Your task to perform on an android device: Open calendar and show me the fourth week of next month Image 0: 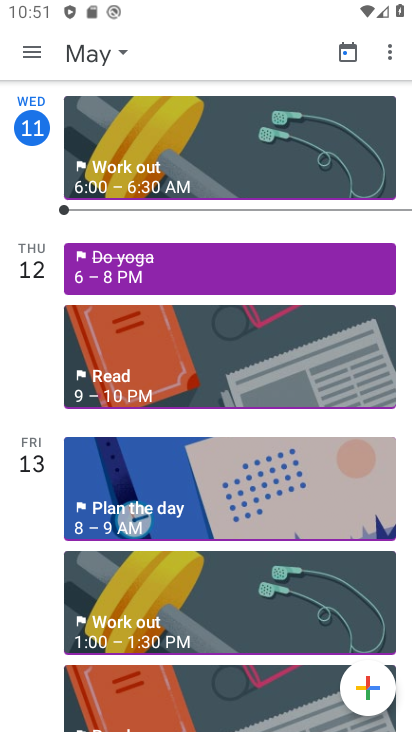
Step 0: press home button
Your task to perform on an android device: Open calendar and show me the fourth week of next month Image 1: 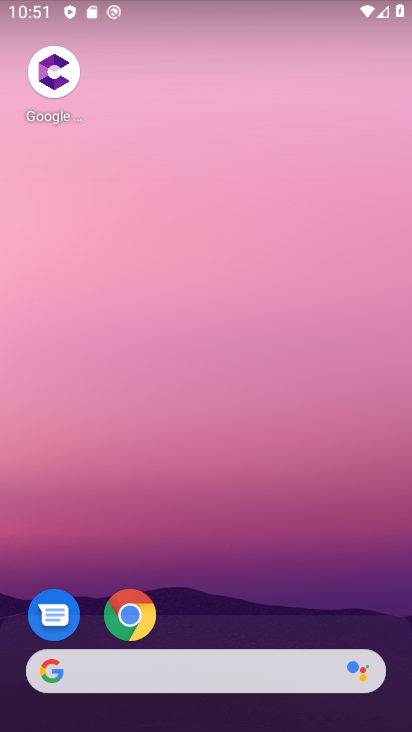
Step 1: drag from (262, 497) to (217, 187)
Your task to perform on an android device: Open calendar and show me the fourth week of next month Image 2: 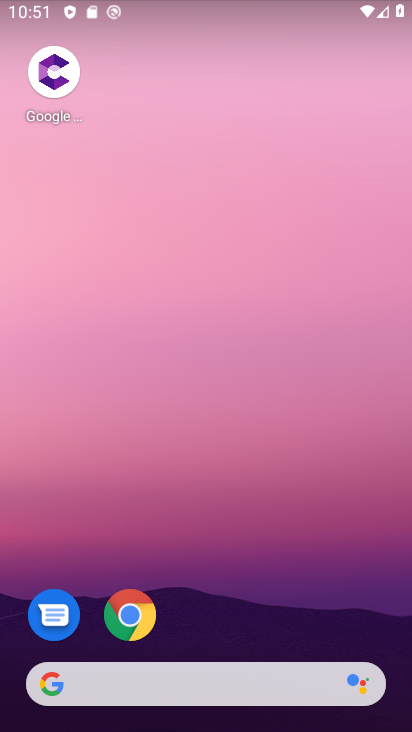
Step 2: drag from (242, 551) to (147, 31)
Your task to perform on an android device: Open calendar and show me the fourth week of next month Image 3: 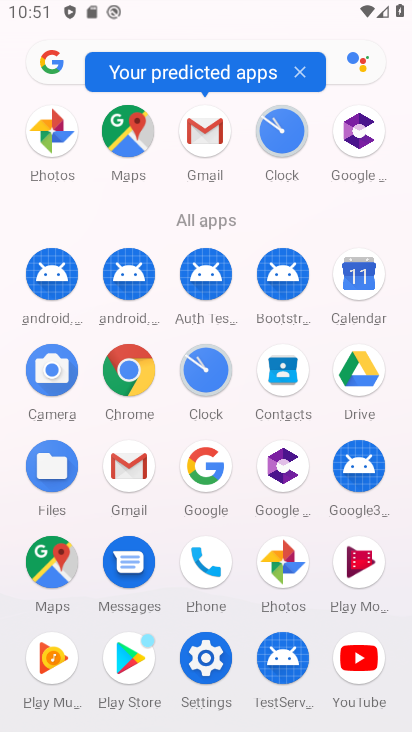
Step 3: click (346, 293)
Your task to perform on an android device: Open calendar and show me the fourth week of next month Image 4: 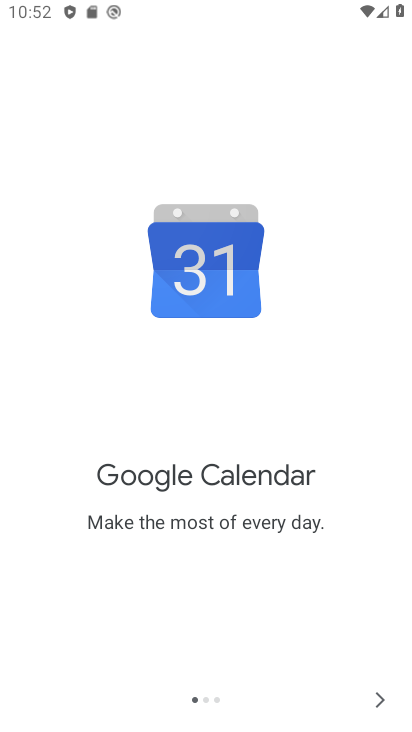
Step 4: click (373, 692)
Your task to perform on an android device: Open calendar and show me the fourth week of next month Image 5: 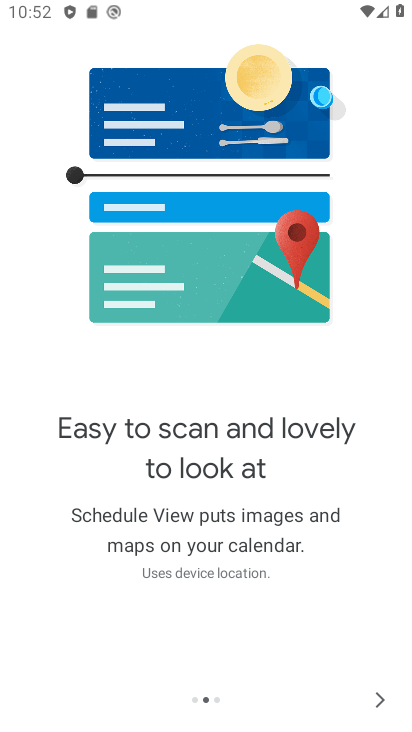
Step 5: click (373, 692)
Your task to perform on an android device: Open calendar and show me the fourth week of next month Image 6: 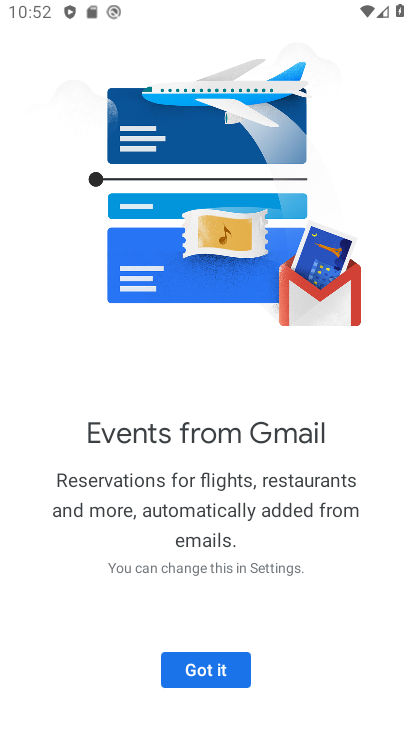
Step 6: click (205, 661)
Your task to perform on an android device: Open calendar and show me the fourth week of next month Image 7: 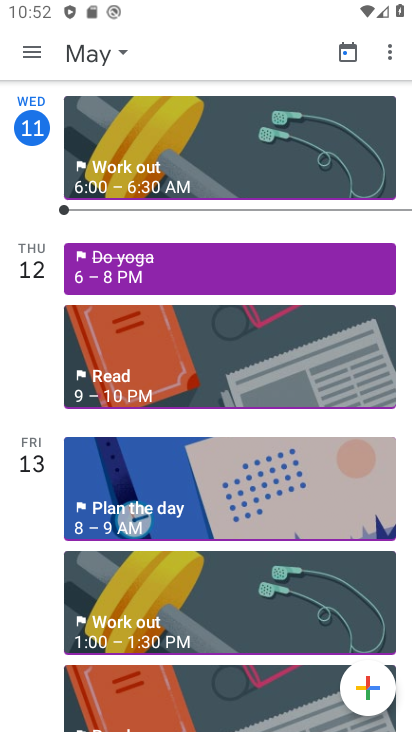
Step 7: click (26, 51)
Your task to perform on an android device: Open calendar and show me the fourth week of next month Image 8: 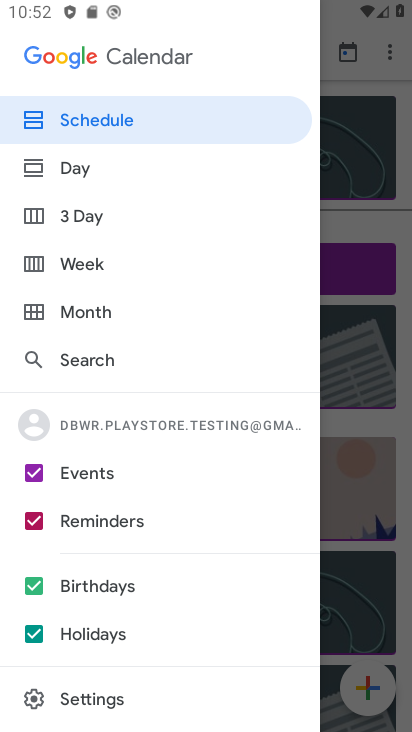
Step 8: click (86, 265)
Your task to perform on an android device: Open calendar and show me the fourth week of next month Image 9: 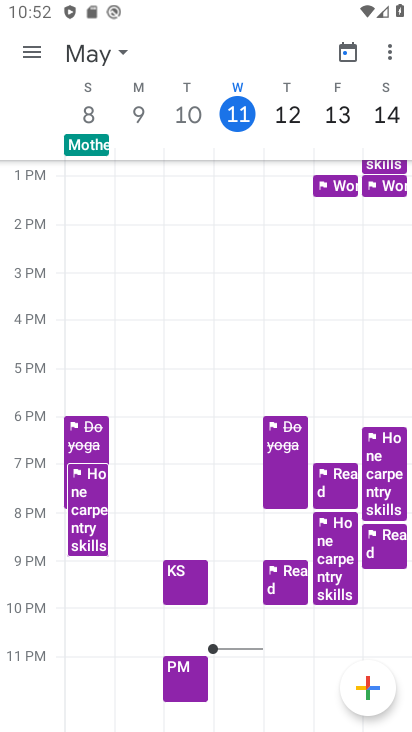
Step 9: click (123, 51)
Your task to perform on an android device: Open calendar and show me the fourth week of next month Image 10: 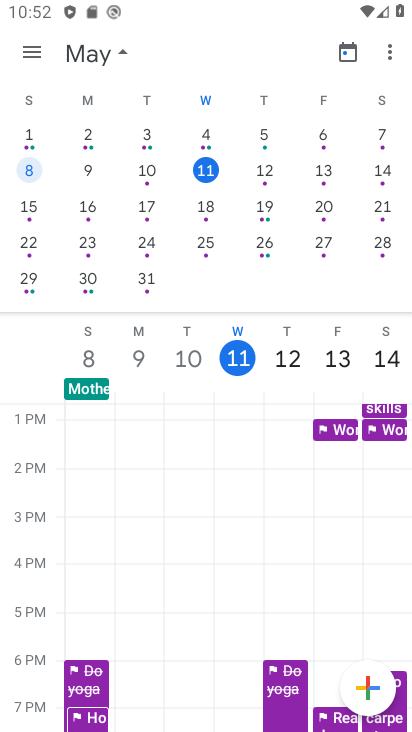
Step 10: drag from (367, 218) to (14, 177)
Your task to perform on an android device: Open calendar and show me the fourth week of next month Image 11: 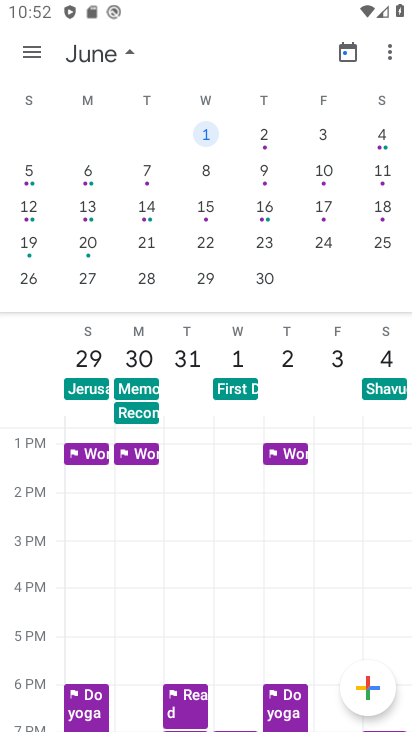
Step 11: click (211, 241)
Your task to perform on an android device: Open calendar and show me the fourth week of next month Image 12: 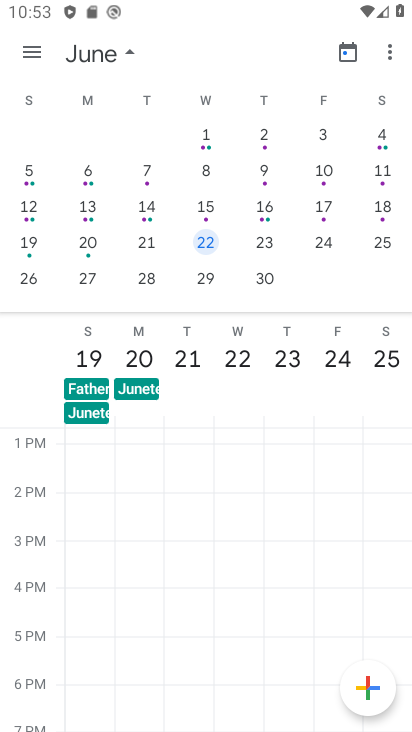
Step 12: task complete